Your task to perform on an android device: Check the weather Image 0: 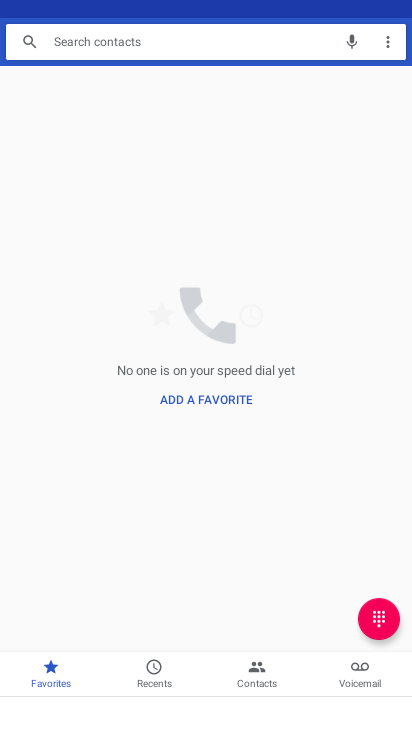
Step 0: press home button
Your task to perform on an android device: Check the weather Image 1: 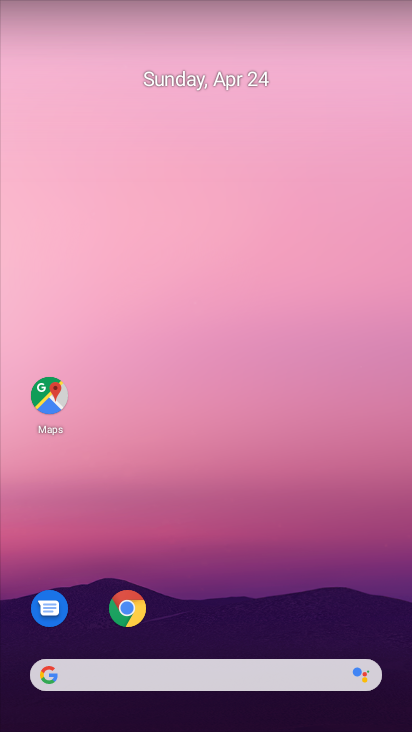
Step 1: click (167, 672)
Your task to perform on an android device: Check the weather Image 2: 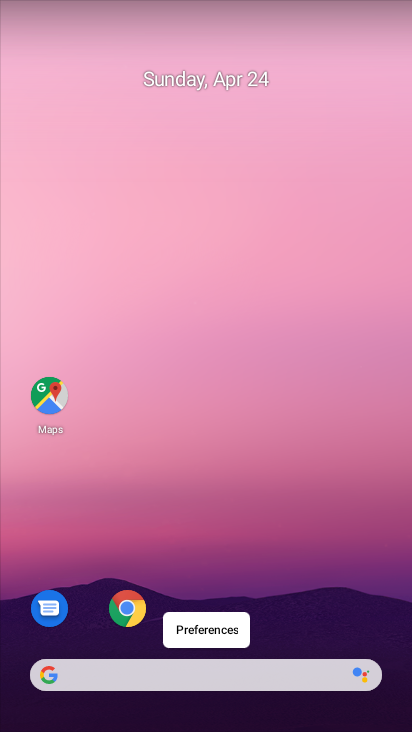
Step 2: click (175, 666)
Your task to perform on an android device: Check the weather Image 3: 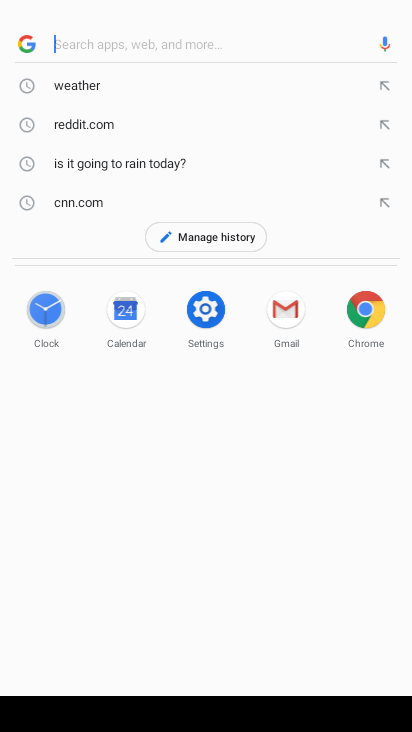
Step 3: click (26, 34)
Your task to perform on an android device: Check the weather Image 4: 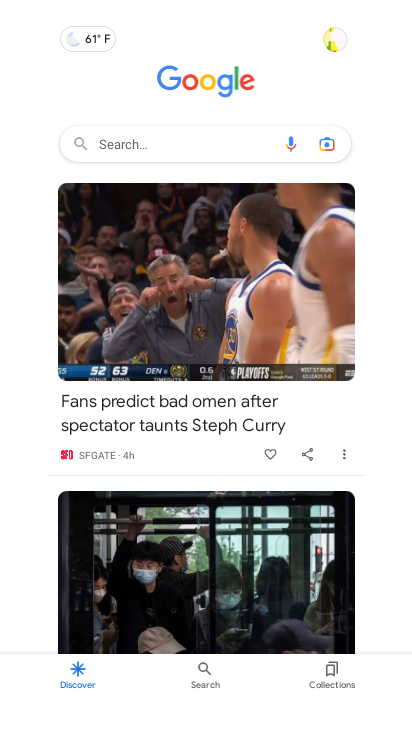
Step 4: click (88, 38)
Your task to perform on an android device: Check the weather Image 5: 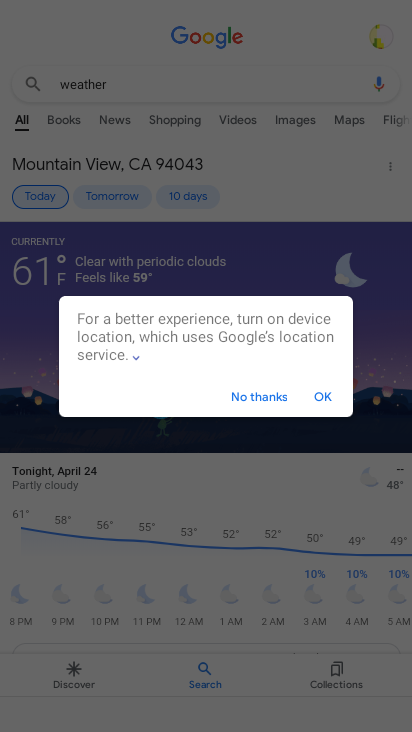
Step 5: click (256, 394)
Your task to perform on an android device: Check the weather Image 6: 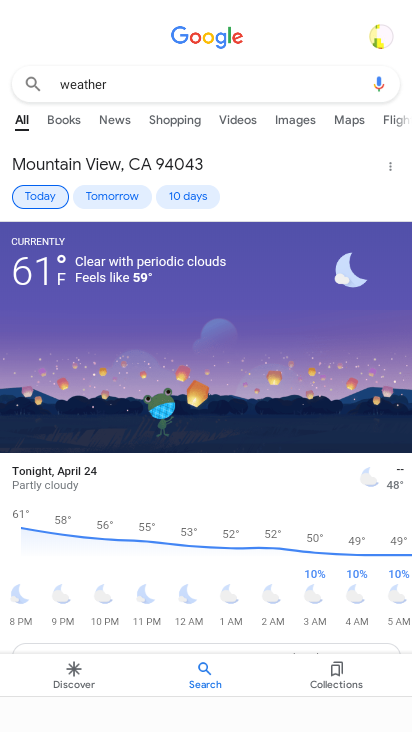
Step 6: task complete